Your task to perform on an android device: install app "Calculator" Image 0: 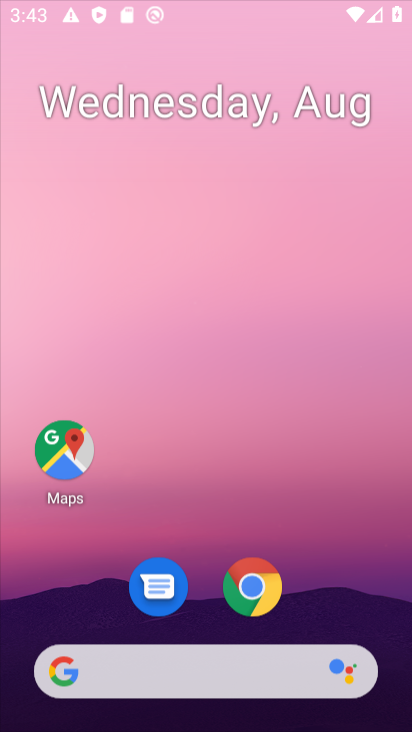
Step 0: press home button
Your task to perform on an android device: install app "Calculator" Image 1: 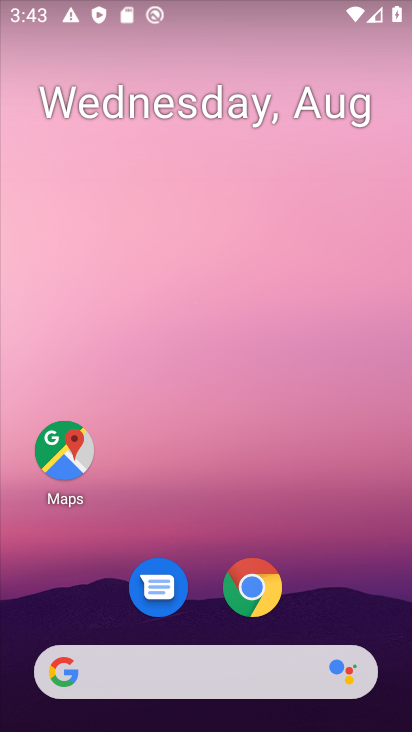
Step 1: drag from (208, 624) to (248, 39)
Your task to perform on an android device: install app "Calculator" Image 2: 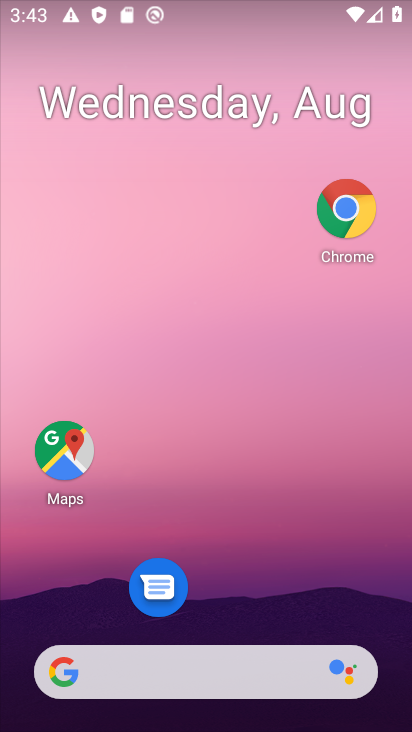
Step 2: drag from (224, 606) to (238, 66)
Your task to perform on an android device: install app "Calculator" Image 3: 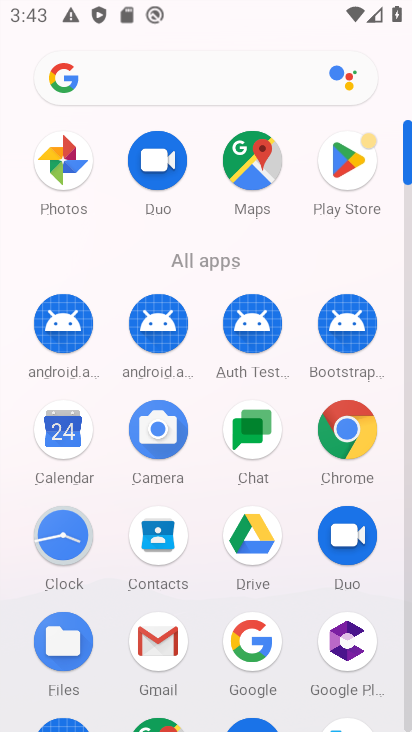
Step 3: click (341, 155)
Your task to perform on an android device: install app "Calculator" Image 4: 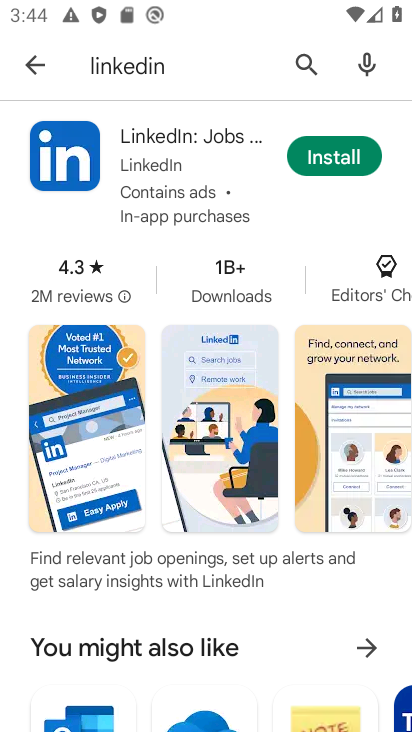
Step 4: click (307, 57)
Your task to perform on an android device: install app "Calculator" Image 5: 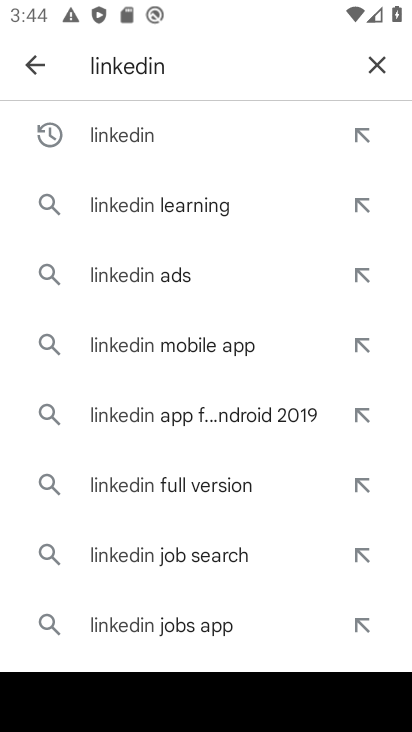
Step 5: click (382, 59)
Your task to perform on an android device: install app "Calculator" Image 6: 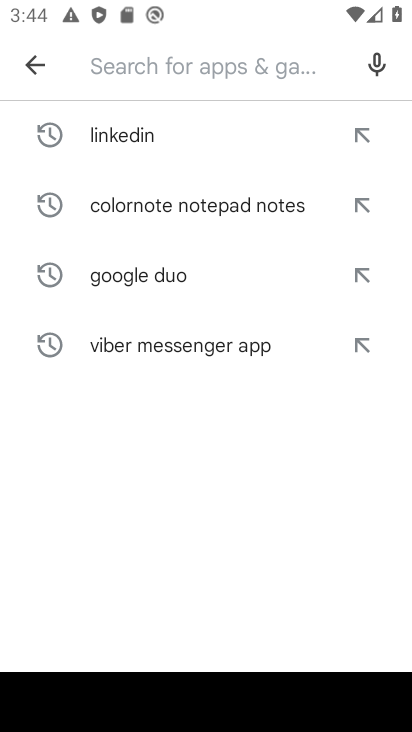
Step 6: type "Calculator"
Your task to perform on an android device: install app "Calculator" Image 7: 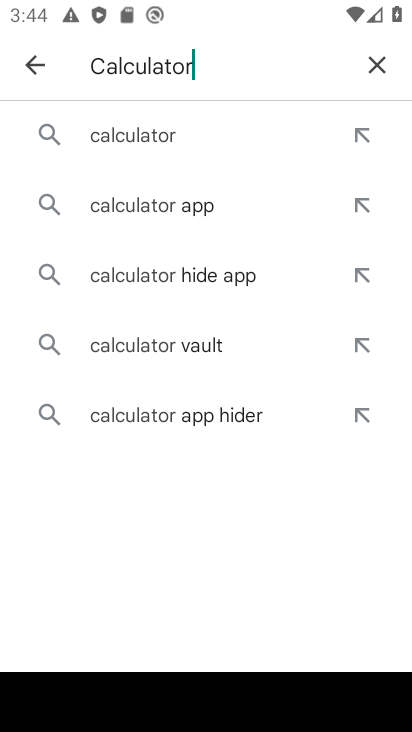
Step 7: click (174, 131)
Your task to perform on an android device: install app "Calculator" Image 8: 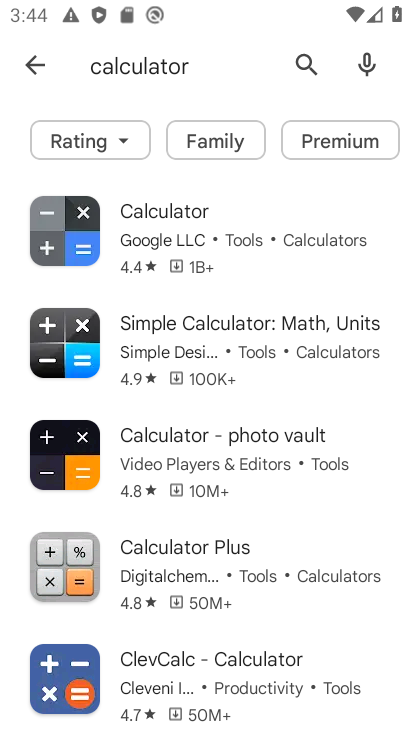
Step 8: click (181, 230)
Your task to perform on an android device: install app "Calculator" Image 9: 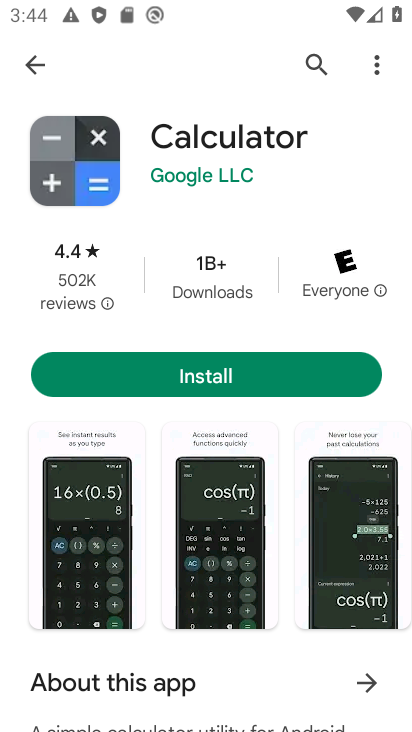
Step 9: click (219, 379)
Your task to perform on an android device: install app "Calculator" Image 10: 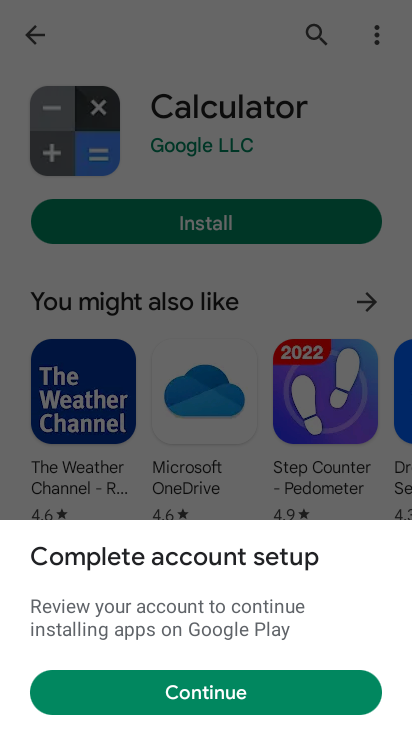
Step 10: click (199, 688)
Your task to perform on an android device: install app "Calculator" Image 11: 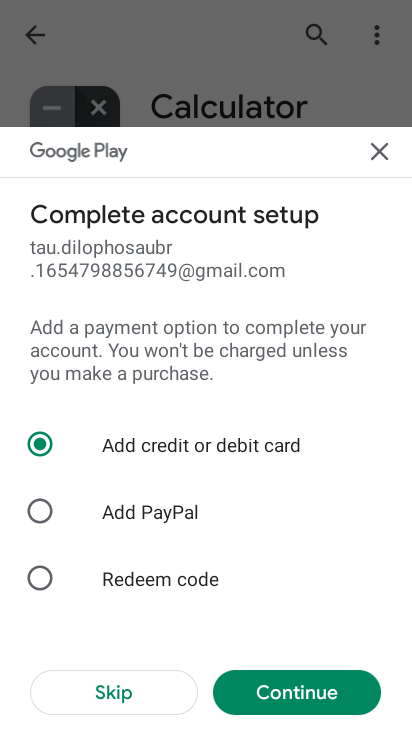
Step 11: click (108, 696)
Your task to perform on an android device: install app "Calculator" Image 12: 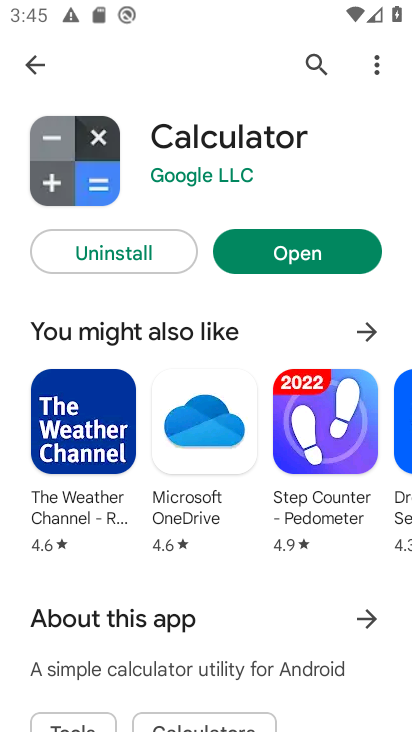
Step 12: click (301, 254)
Your task to perform on an android device: install app "Calculator" Image 13: 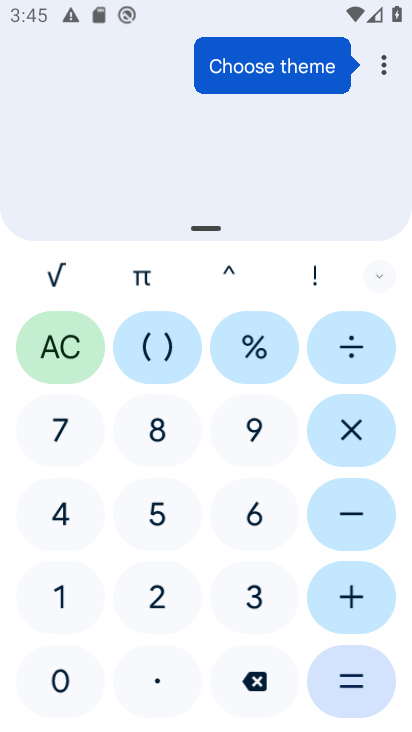
Step 13: task complete